Your task to perform on an android device: Do I have any events this weekend? Image 0: 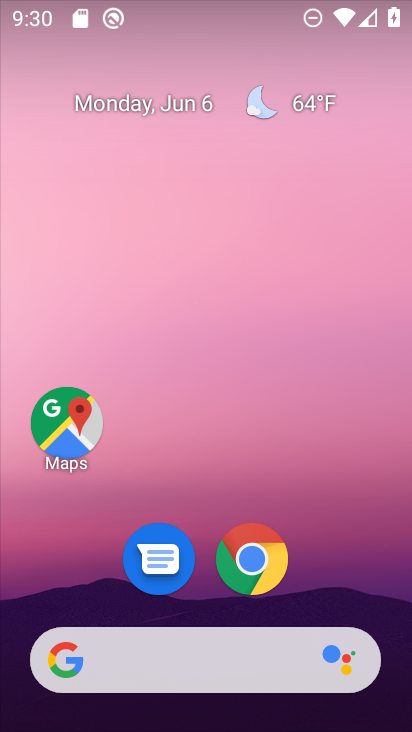
Step 0: drag from (193, 725) to (179, 158)
Your task to perform on an android device: Do I have any events this weekend? Image 1: 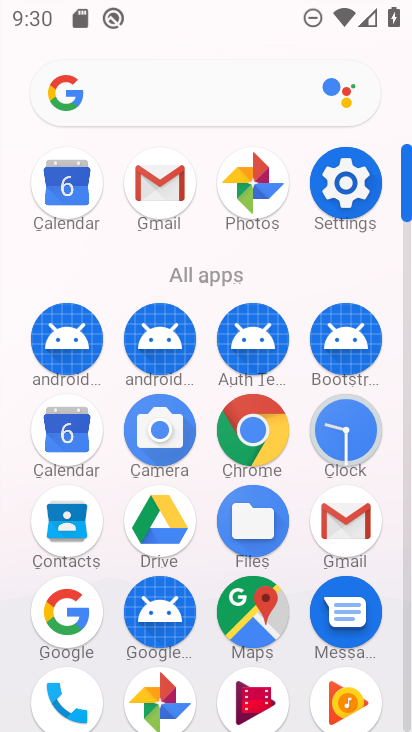
Step 1: click (75, 436)
Your task to perform on an android device: Do I have any events this weekend? Image 2: 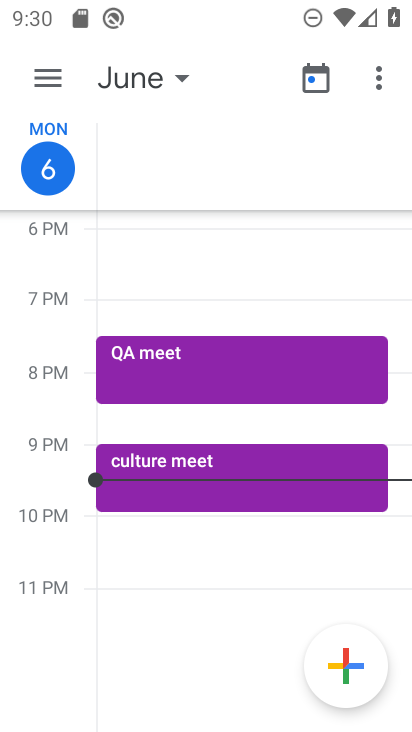
Step 2: click (182, 74)
Your task to perform on an android device: Do I have any events this weekend? Image 3: 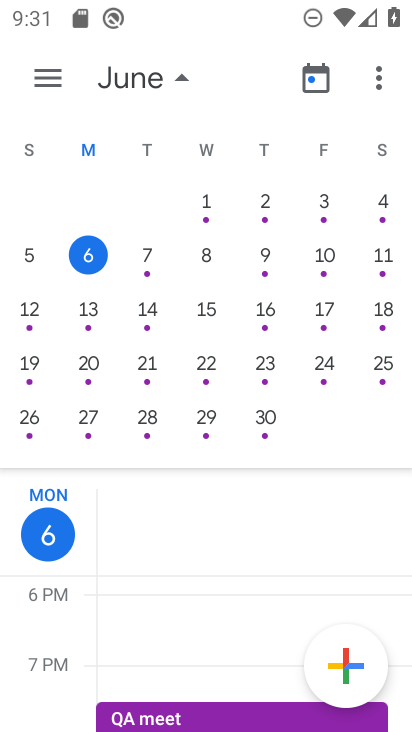
Step 3: click (385, 254)
Your task to perform on an android device: Do I have any events this weekend? Image 4: 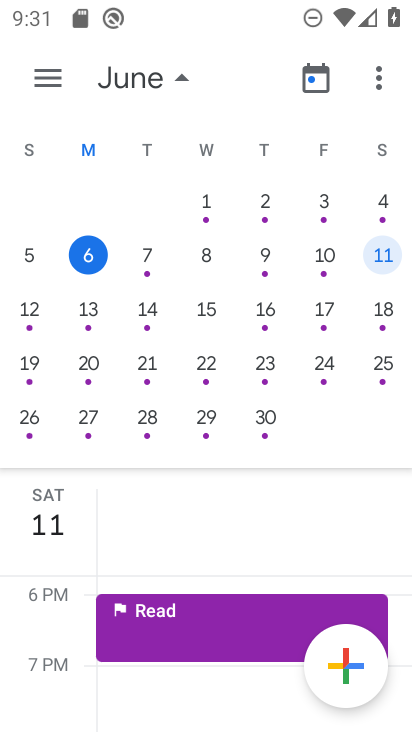
Step 4: click (385, 254)
Your task to perform on an android device: Do I have any events this weekend? Image 5: 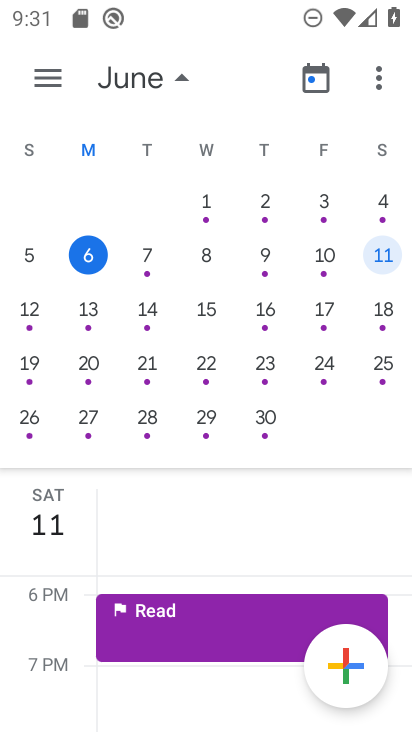
Step 5: click (180, 79)
Your task to perform on an android device: Do I have any events this weekend? Image 6: 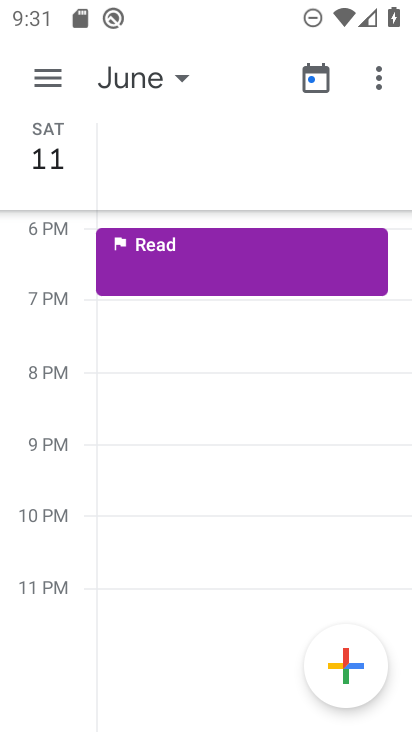
Step 6: task complete